Your task to perform on an android device: turn on translation in the chrome app Image 0: 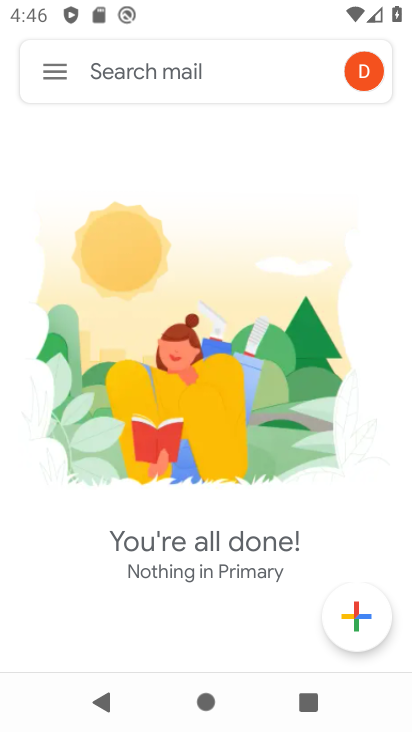
Step 0: click (63, 70)
Your task to perform on an android device: turn on translation in the chrome app Image 1: 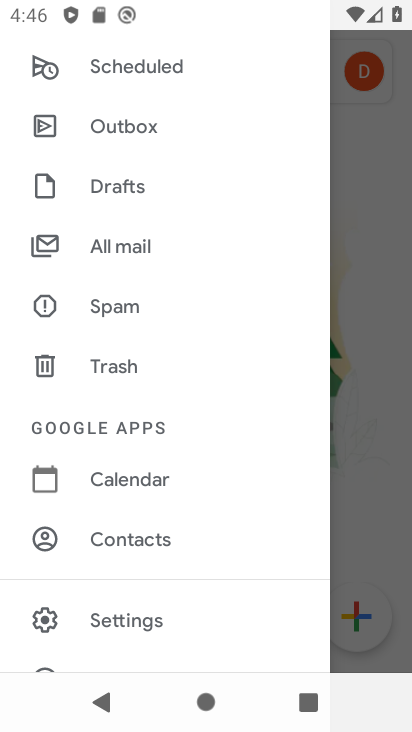
Step 1: click (157, 621)
Your task to perform on an android device: turn on translation in the chrome app Image 2: 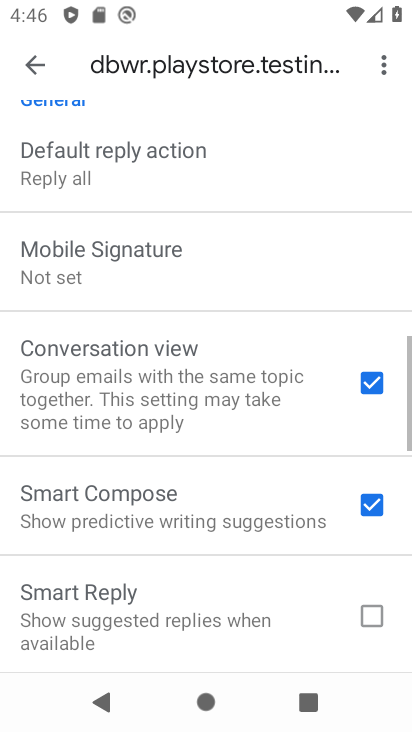
Step 2: drag from (209, 607) to (193, 105)
Your task to perform on an android device: turn on translation in the chrome app Image 3: 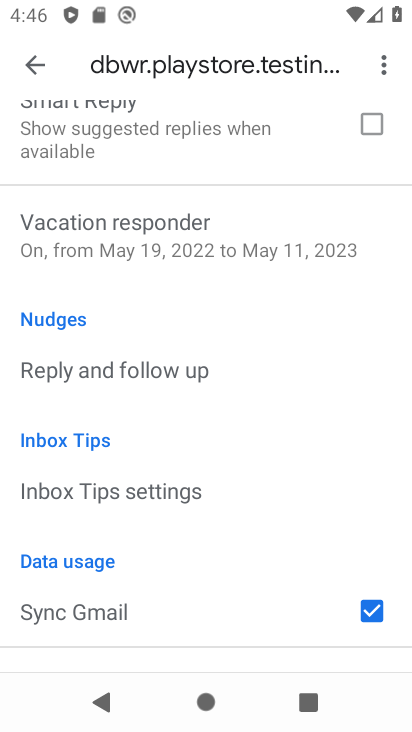
Step 3: press home button
Your task to perform on an android device: turn on translation in the chrome app Image 4: 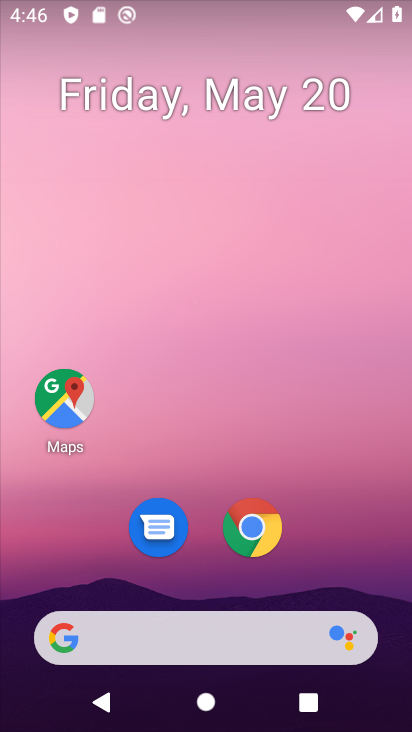
Step 4: drag from (296, 574) to (344, 15)
Your task to perform on an android device: turn on translation in the chrome app Image 5: 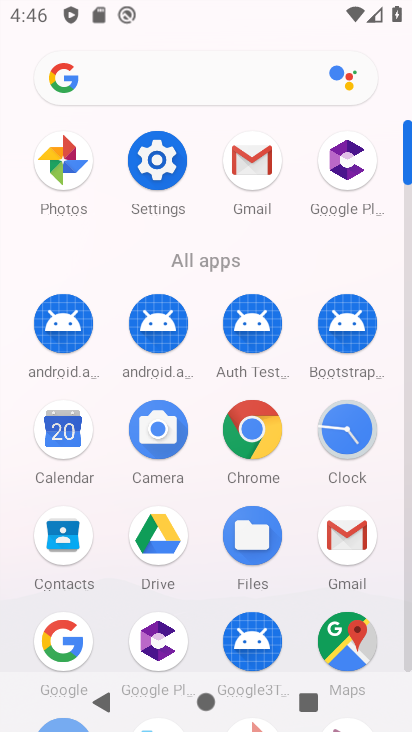
Step 5: click (266, 424)
Your task to perform on an android device: turn on translation in the chrome app Image 6: 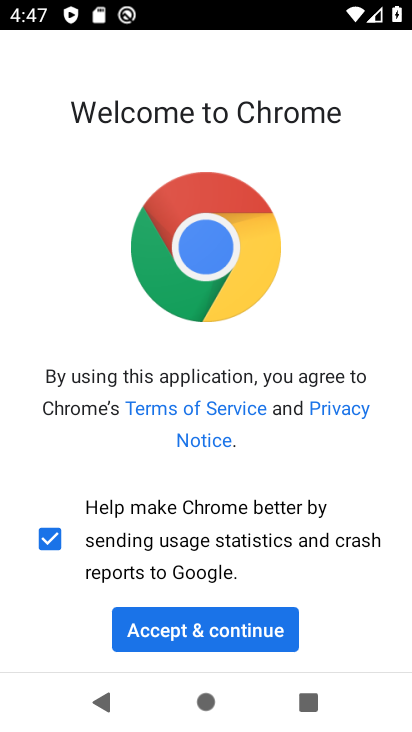
Step 6: click (203, 623)
Your task to perform on an android device: turn on translation in the chrome app Image 7: 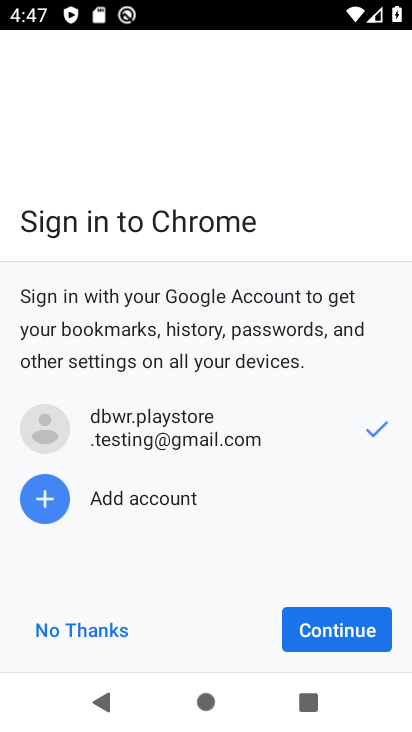
Step 7: click (90, 624)
Your task to perform on an android device: turn on translation in the chrome app Image 8: 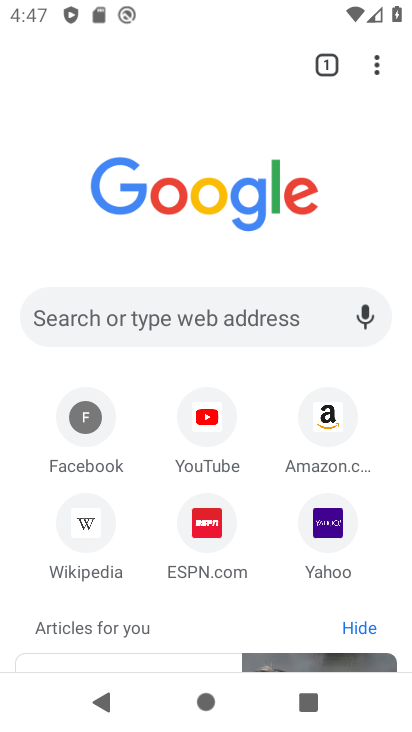
Step 8: drag from (364, 76) to (189, 552)
Your task to perform on an android device: turn on translation in the chrome app Image 9: 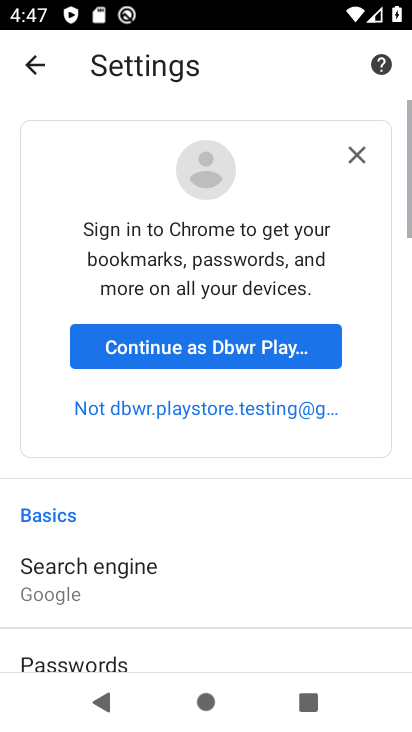
Step 9: drag from (165, 628) to (165, 25)
Your task to perform on an android device: turn on translation in the chrome app Image 10: 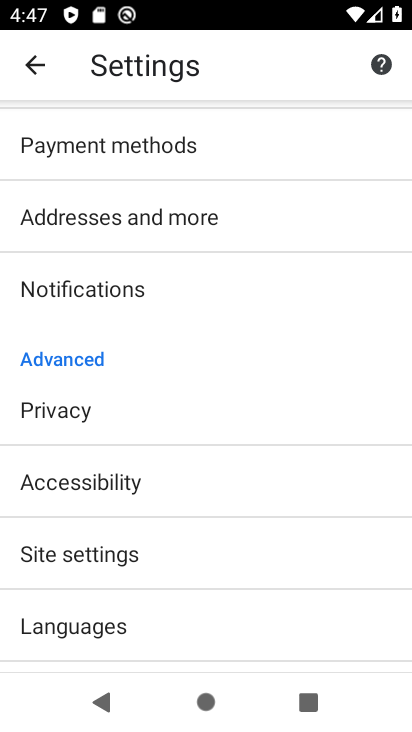
Step 10: drag from (164, 570) to (177, 254)
Your task to perform on an android device: turn on translation in the chrome app Image 11: 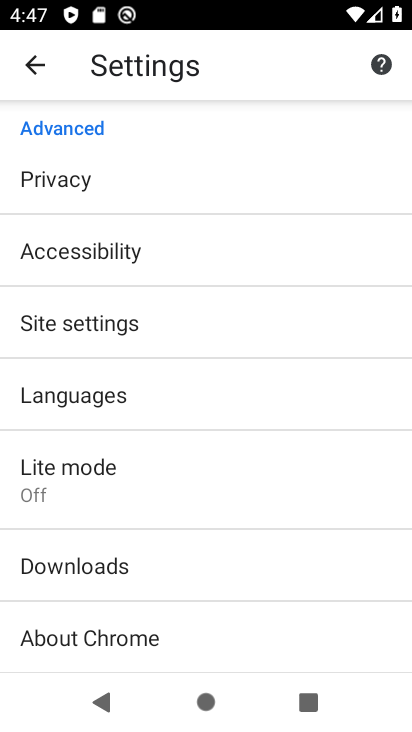
Step 11: click (127, 404)
Your task to perform on an android device: turn on translation in the chrome app Image 12: 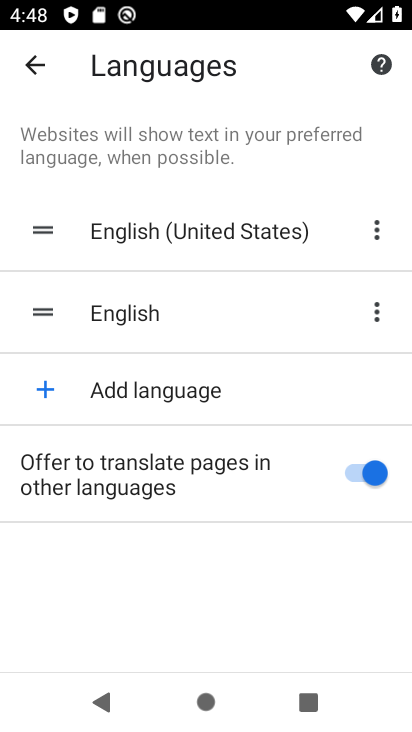
Step 12: task complete